Your task to perform on an android device: remove spam from my inbox in the gmail app Image 0: 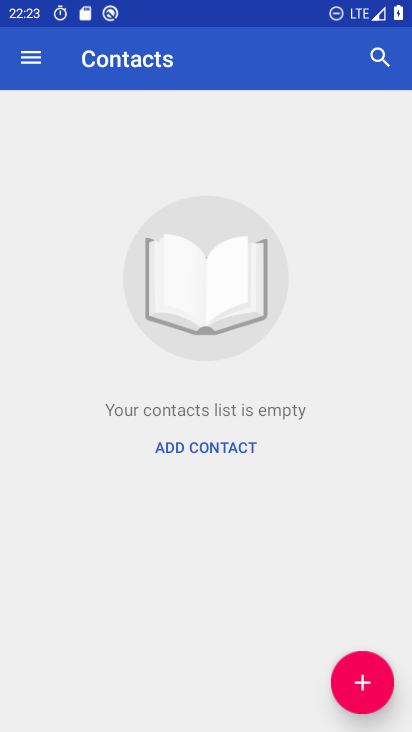
Step 0: press home button
Your task to perform on an android device: remove spam from my inbox in the gmail app Image 1: 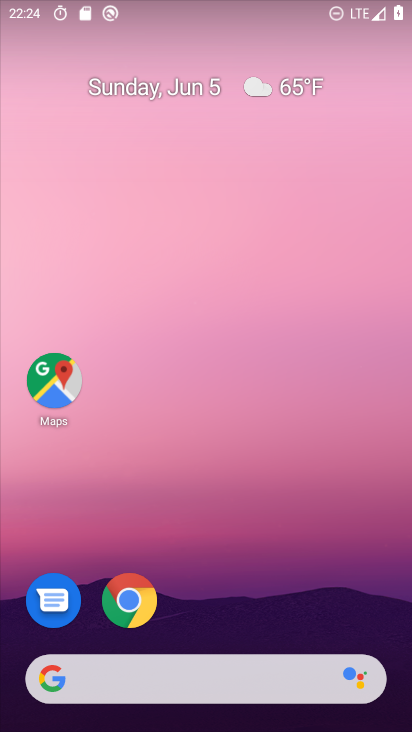
Step 1: drag from (280, 547) to (289, 135)
Your task to perform on an android device: remove spam from my inbox in the gmail app Image 2: 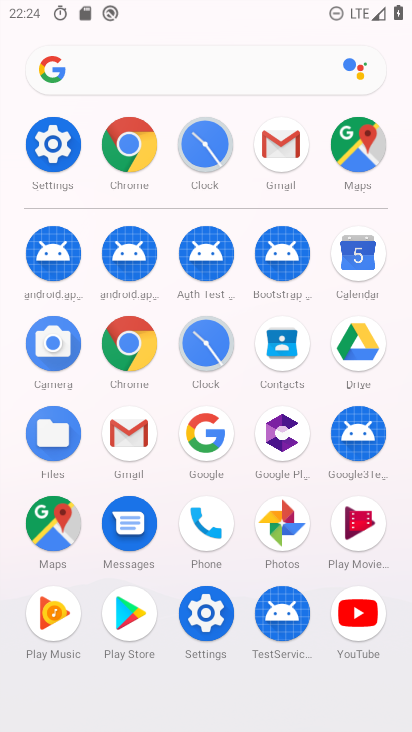
Step 2: click (280, 139)
Your task to perform on an android device: remove spam from my inbox in the gmail app Image 3: 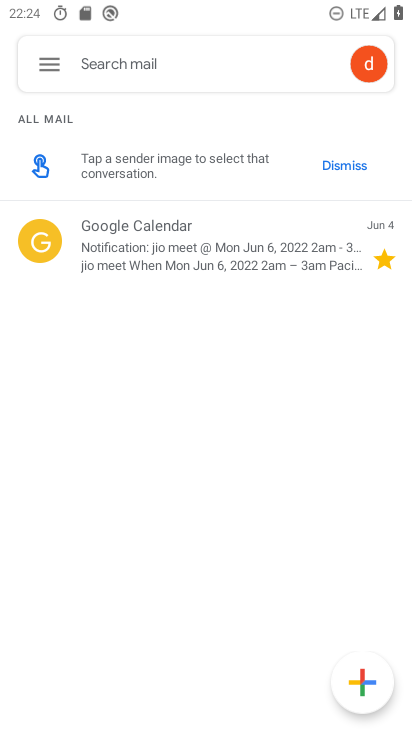
Step 3: click (37, 56)
Your task to perform on an android device: remove spam from my inbox in the gmail app Image 4: 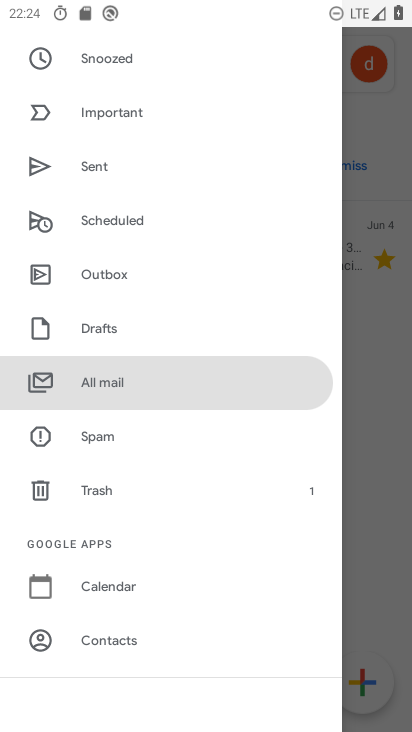
Step 4: drag from (126, 79) to (107, 580)
Your task to perform on an android device: remove spam from my inbox in the gmail app Image 5: 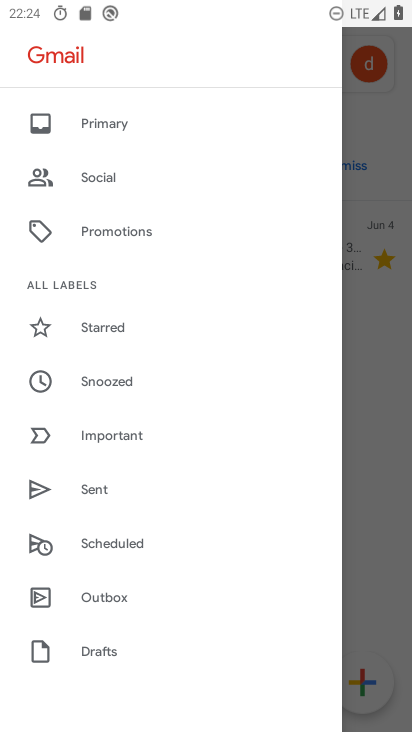
Step 5: click (104, 122)
Your task to perform on an android device: remove spam from my inbox in the gmail app Image 6: 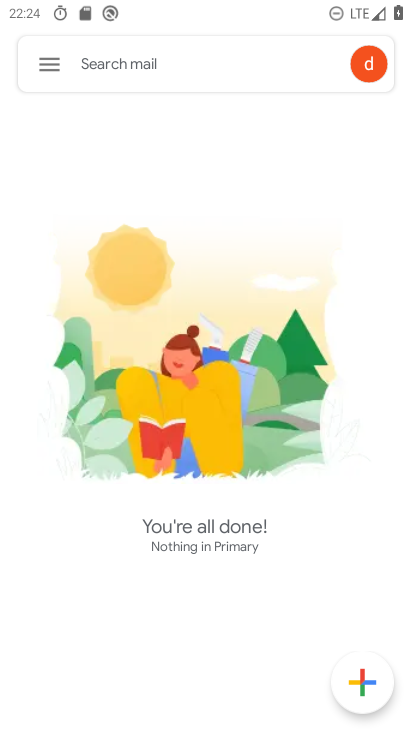
Step 6: task complete